Your task to perform on an android device: Open Google Maps and go to "Timeline" Image 0: 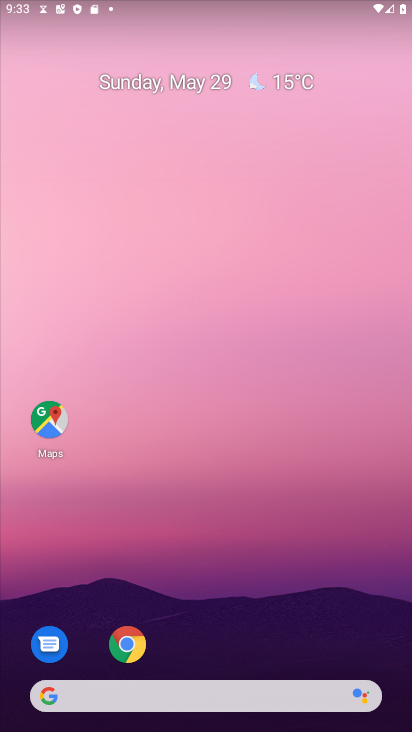
Step 0: click (45, 428)
Your task to perform on an android device: Open Google Maps and go to "Timeline" Image 1: 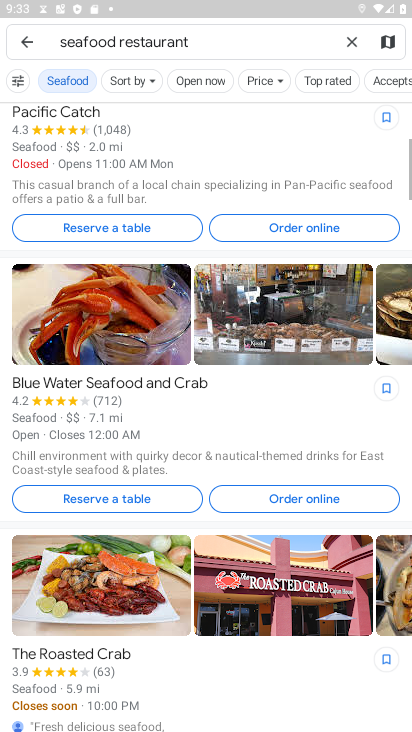
Step 1: click (32, 43)
Your task to perform on an android device: Open Google Maps and go to "Timeline" Image 2: 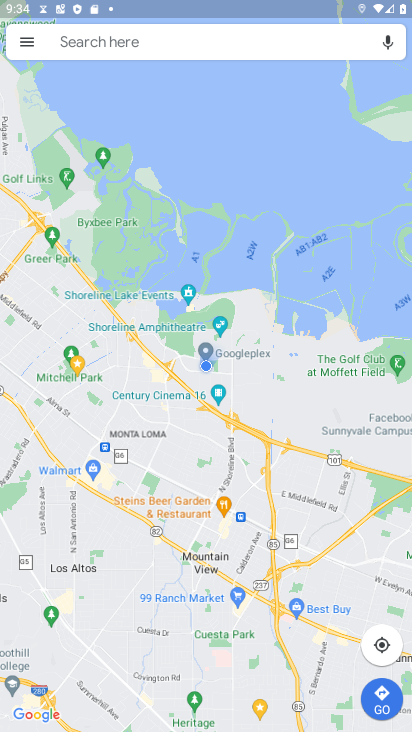
Step 2: click (20, 38)
Your task to perform on an android device: Open Google Maps and go to "Timeline" Image 3: 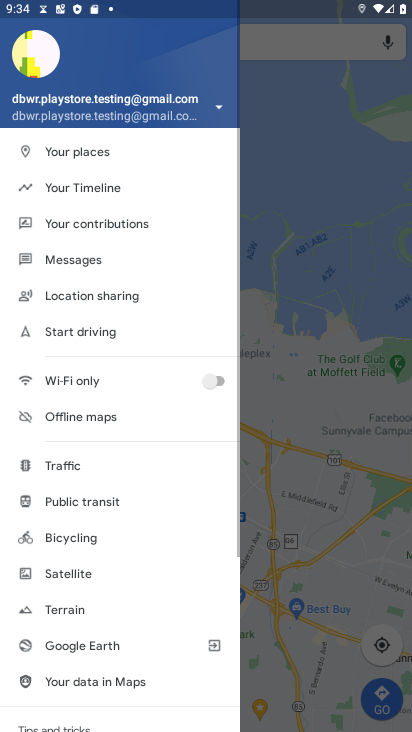
Step 3: click (118, 190)
Your task to perform on an android device: Open Google Maps and go to "Timeline" Image 4: 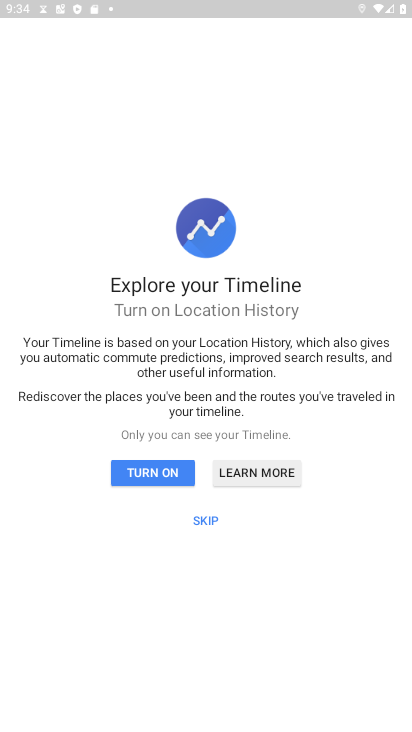
Step 4: task complete